Your task to perform on an android device: open app "TextNow: Call + Text Unlimited" (install if not already installed) Image 0: 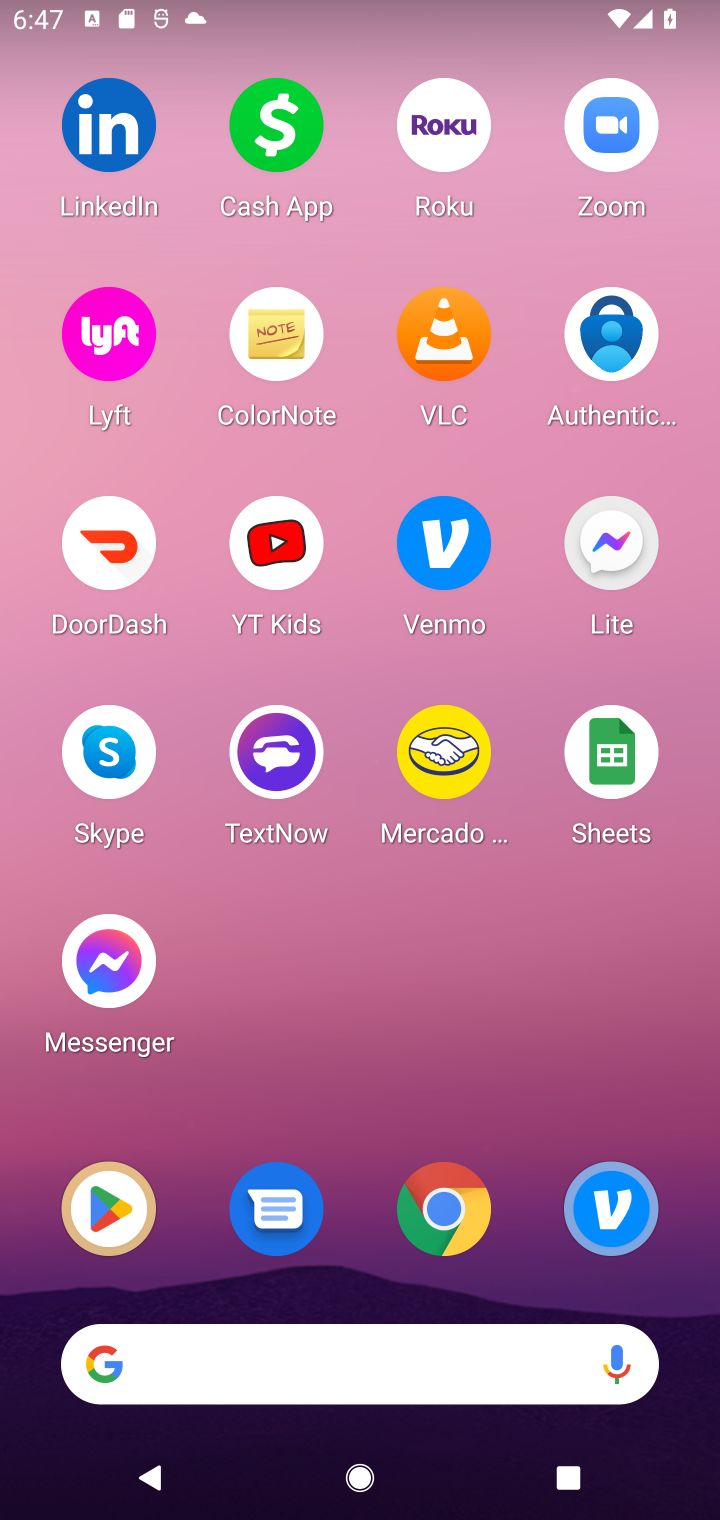
Step 0: click (120, 1213)
Your task to perform on an android device: open app "TextNow: Call + Text Unlimited" (install if not already installed) Image 1: 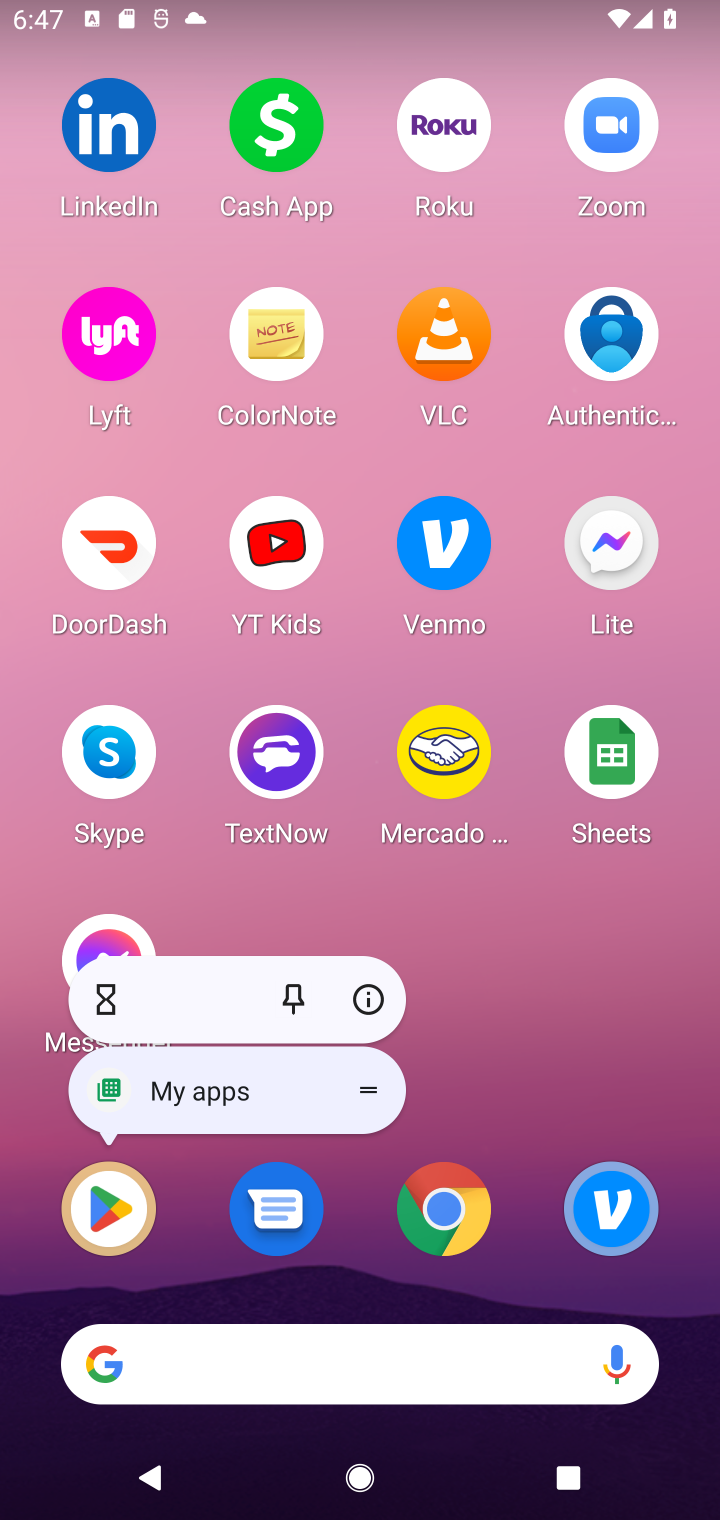
Step 1: click (107, 1220)
Your task to perform on an android device: open app "TextNow: Call + Text Unlimited" (install if not already installed) Image 2: 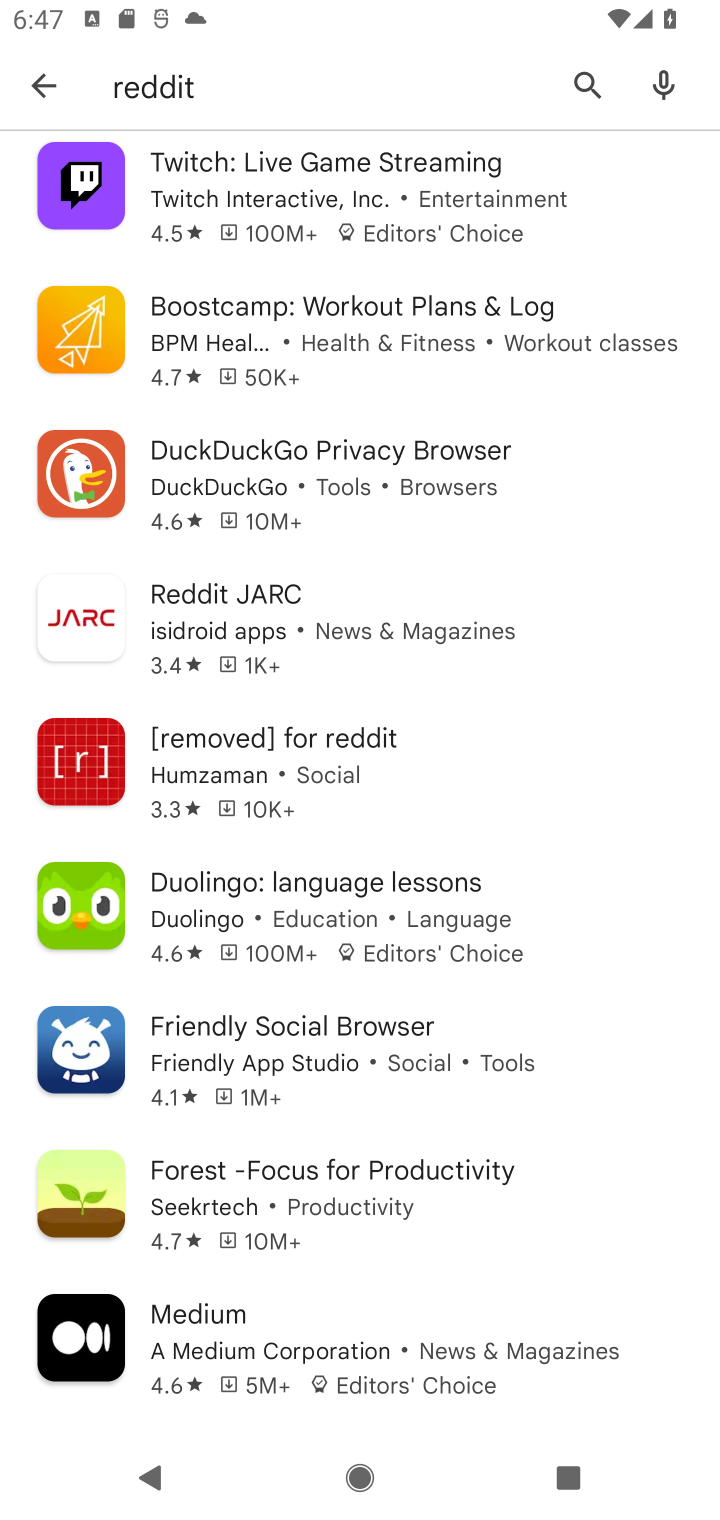
Step 2: click (586, 94)
Your task to perform on an android device: open app "TextNow: Call + Text Unlimited" (install if not already installed) Image 3: 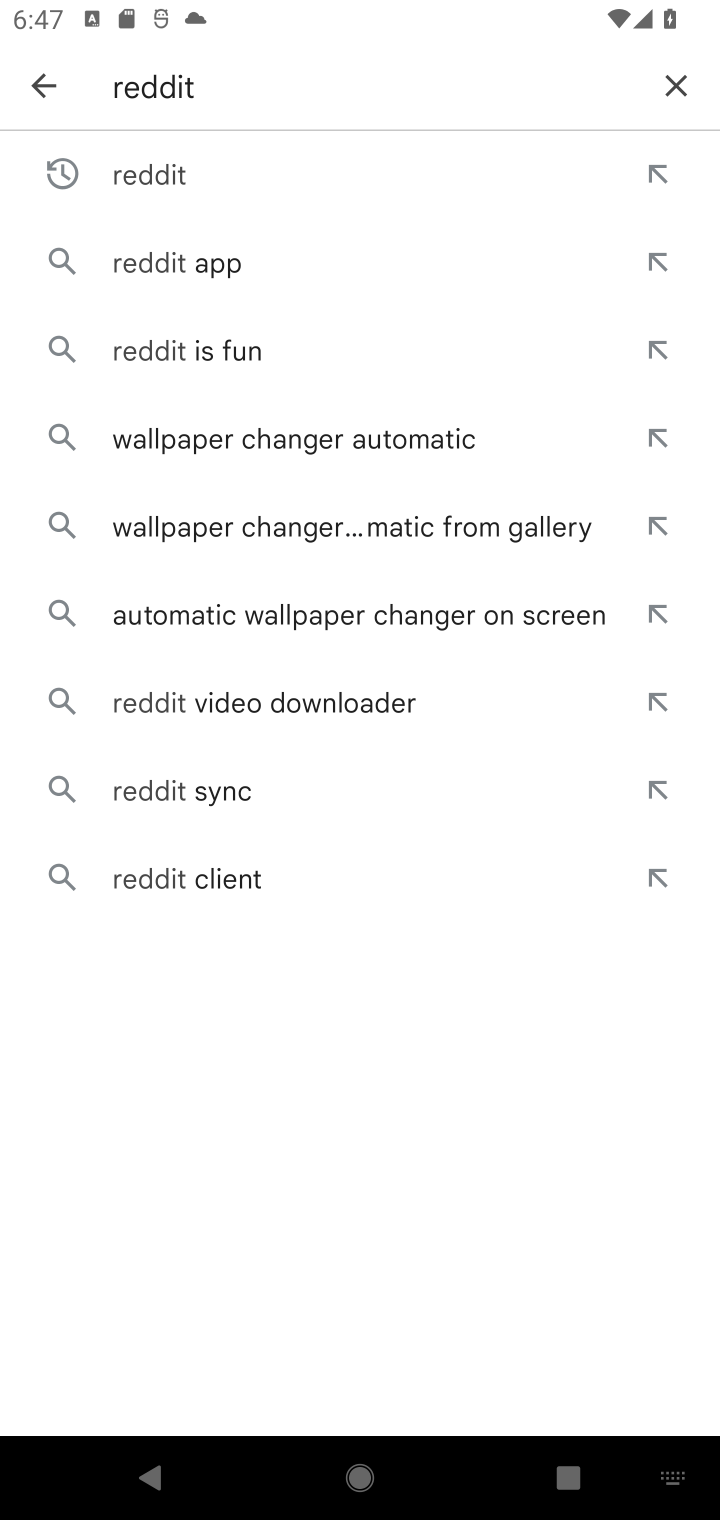
Step 3: click (672, 85)
Your task to perform on an android device: open app "TextNow: Call + Text Unlimited" (install if not already installed) Image 4: 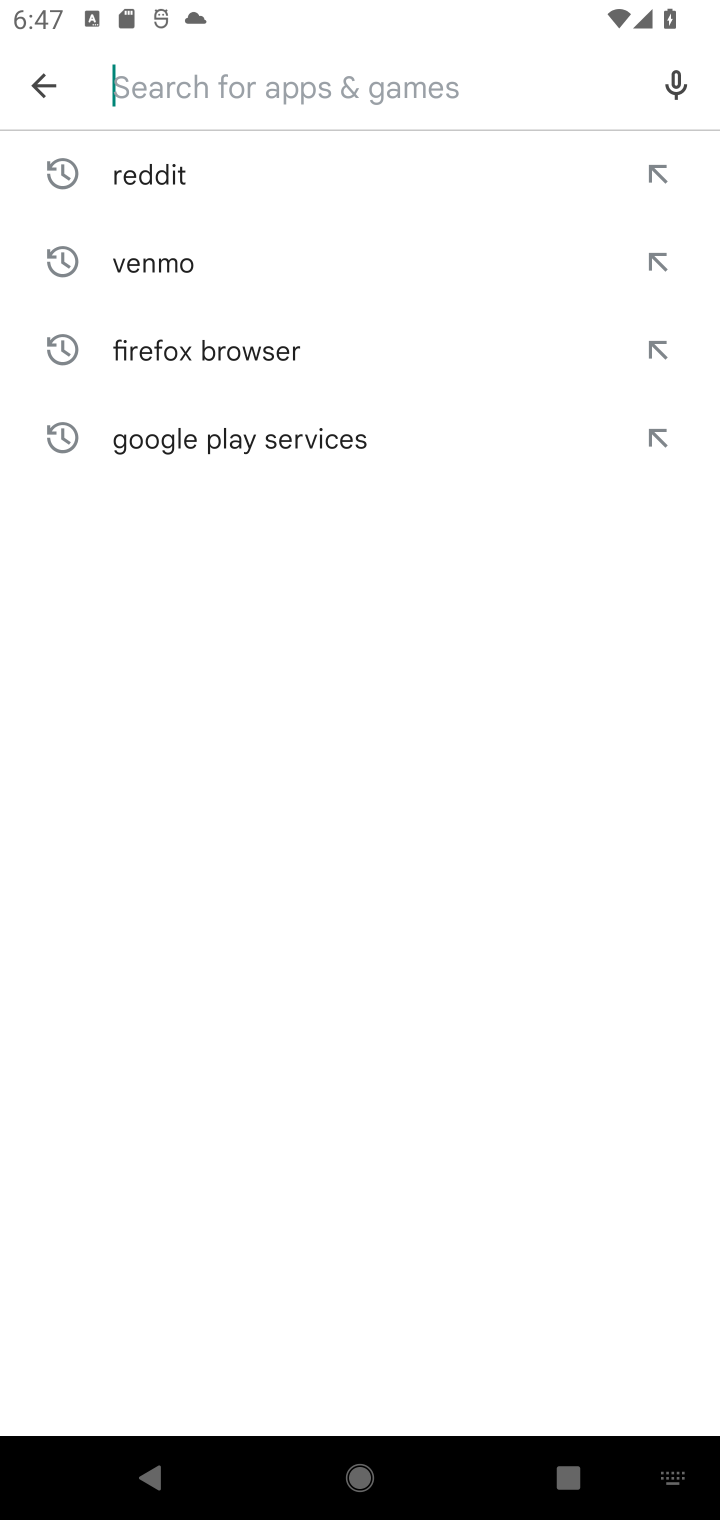
Step 4: type "TextNow: Call + Text Unlimited"
Your task to perform on an android device: open app "TextNow: Call + Text Unlimited" (install if not already installed) Image 5: 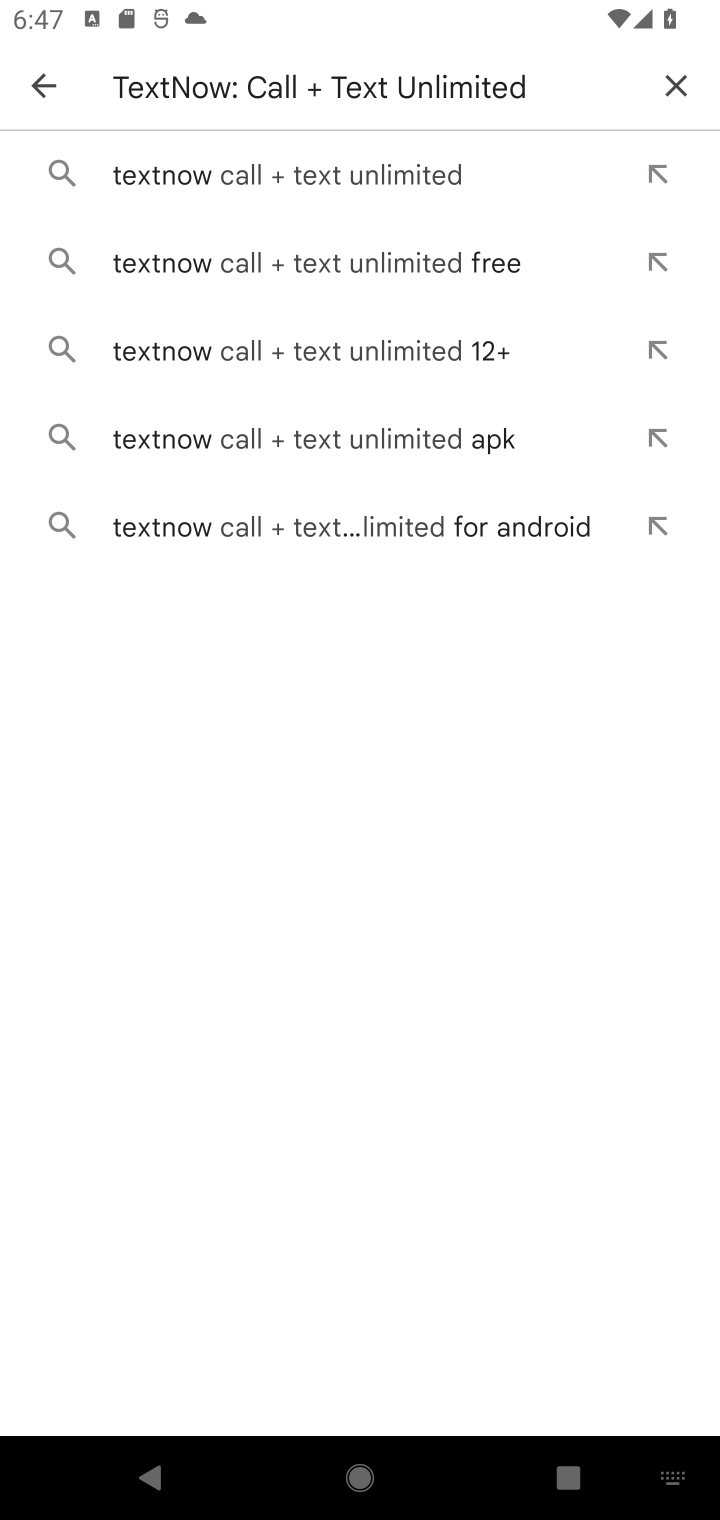
Step 5: click (241, 191)
Your task to perform on an android device: open app "TextNow: Call + Text Unlimited" (install if not already installed) Image 6: 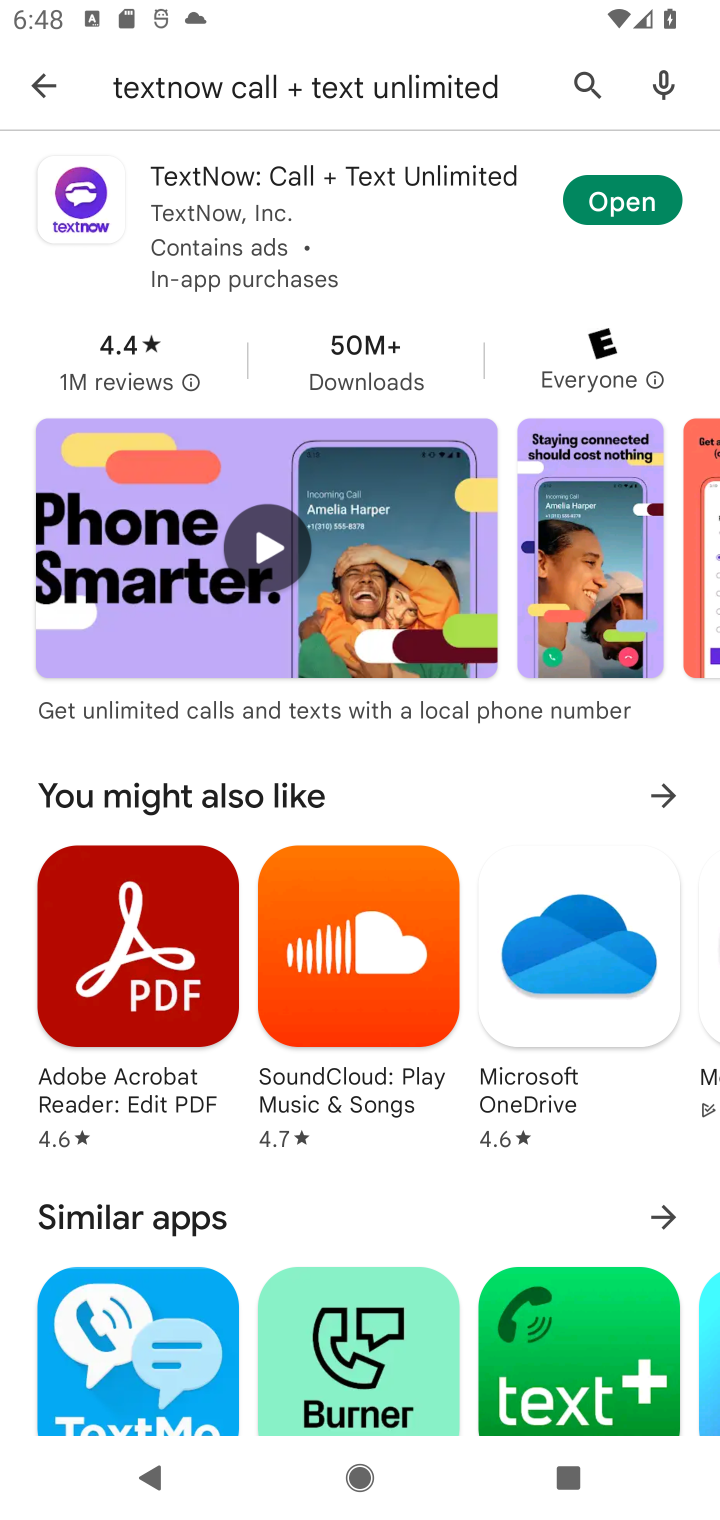
Step 6: click (623, 208)
Your task to perform on an android device: open app "TextNow: Call + Text Unlimited" (install if not already installed) Image 7: 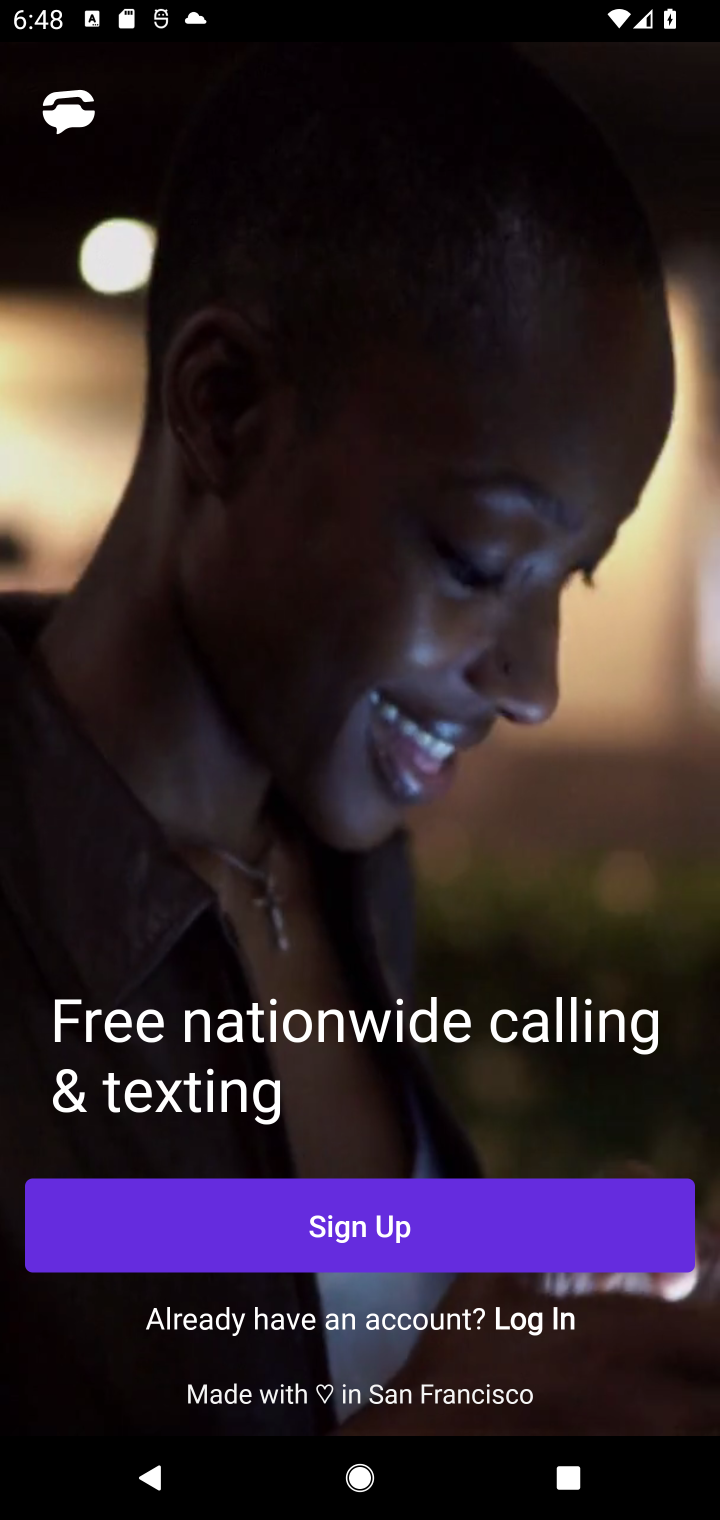
Step 7: task complete